Your task to perform on an android device: turn off data saver in the chrome app Image 0: 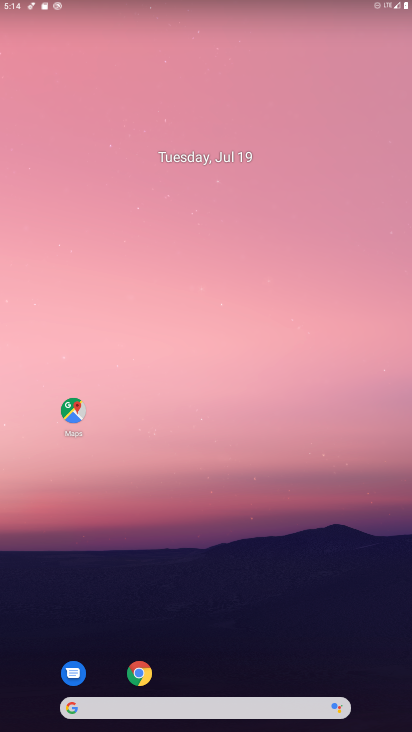
Step 0: press home button
Your task to perform on an android device: turn off data saver in the chrome app Image 1: 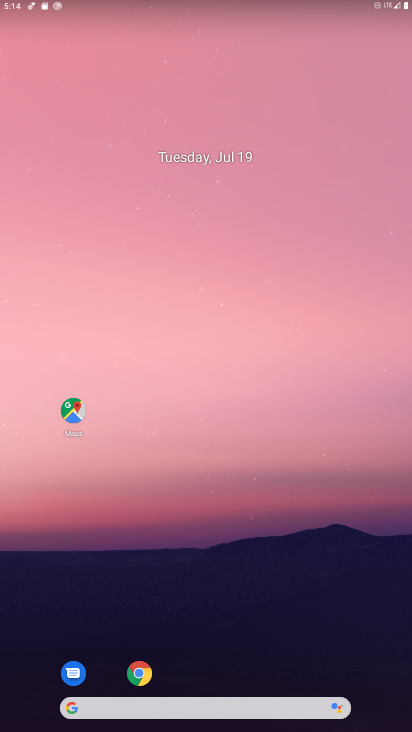
Step 1: click (137, 670)
Your task to perform on an android device: turn off data saver in the chrome app Image 2: 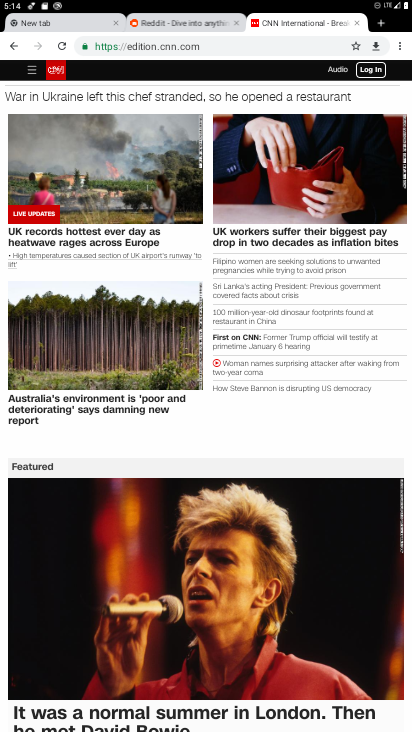
Step 2: click (397, 44)
Your task to perform on an android device: turn off data saver in the chrome app Image 3: 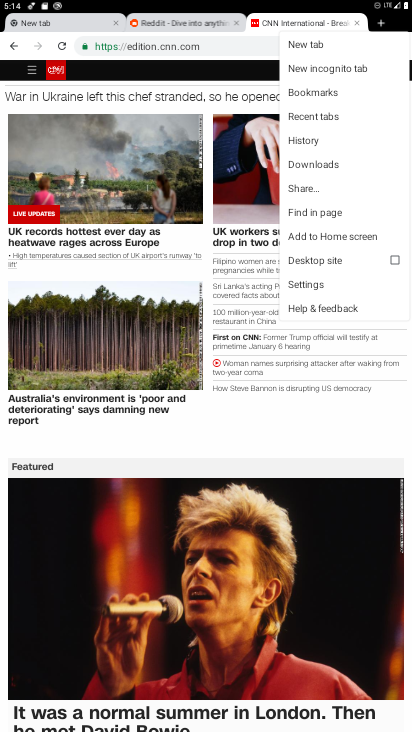
Step 3: click (319, 281)
Your task to perform on an android device: turn off data saver in the chrome app Image 4: 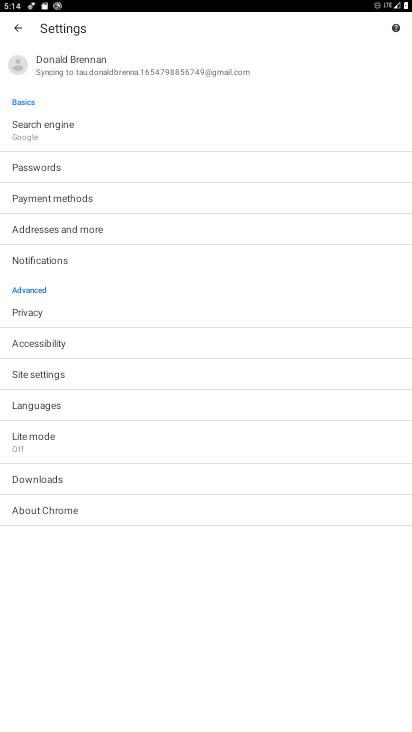
Step 4: click (50, 444)
Your task to perform on an android device: turn off data saver in the chrome app Image 5: 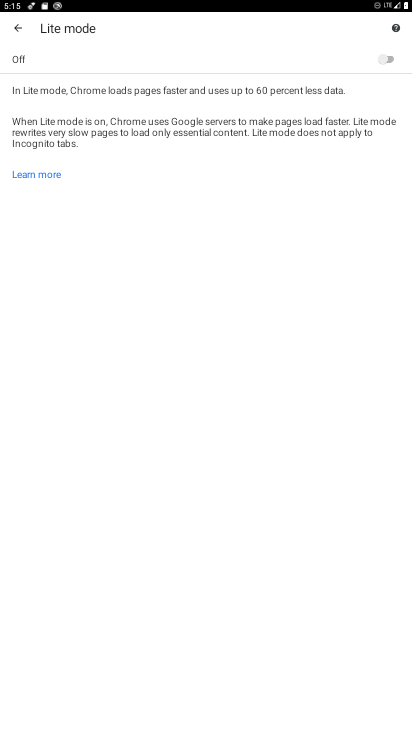
Step 5: task complete